Your task to perform on an android device: Check the weather Image 0: 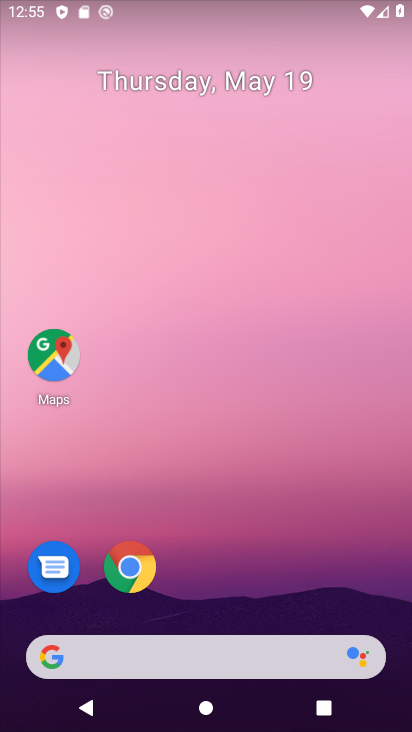
Step 0: press home button
Your task to perform on an android device: Check the weather Image 1: 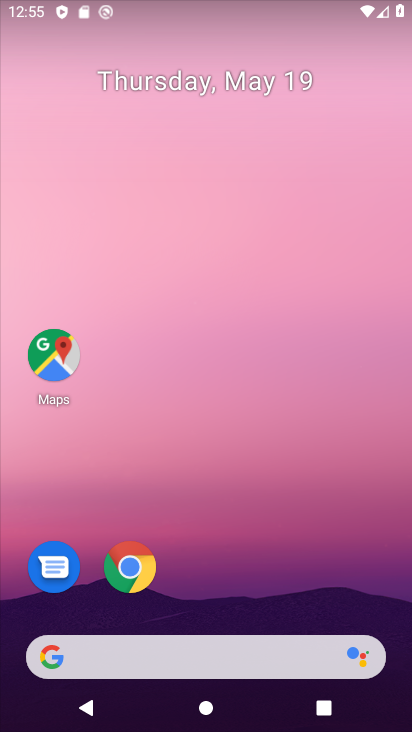
Step 1: click (57, 662)
Your task to perform on an android device: Check the weather Image 2: 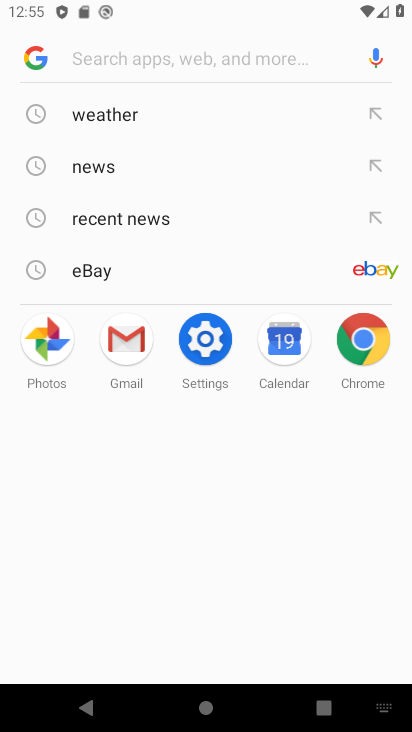
Step 2: click (132, 110)
Your task to perform on an android device: Check the weather Image 3: 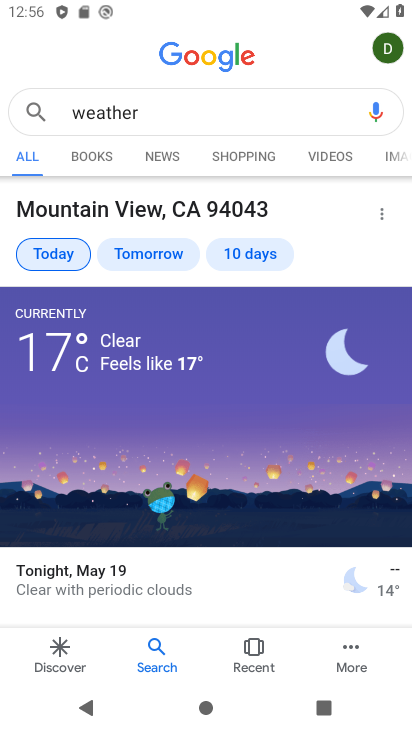
Step 3: task complete